Your task to perform on an android device: Do I have any events this weekend? Image 0: 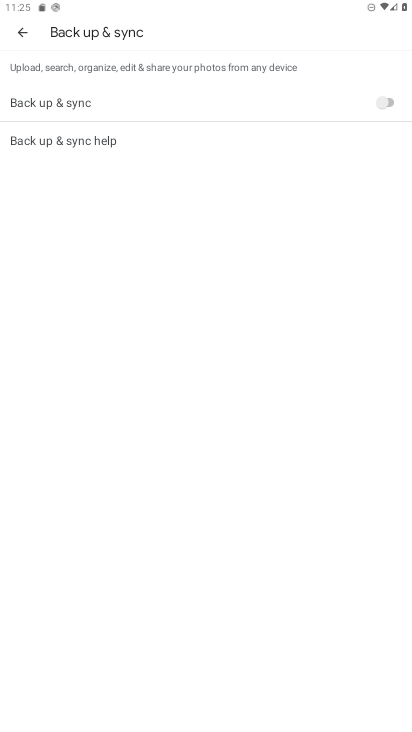
Step 0: press back button
Your task to perform on an android device: Do I have any events this weekend? Image 1: 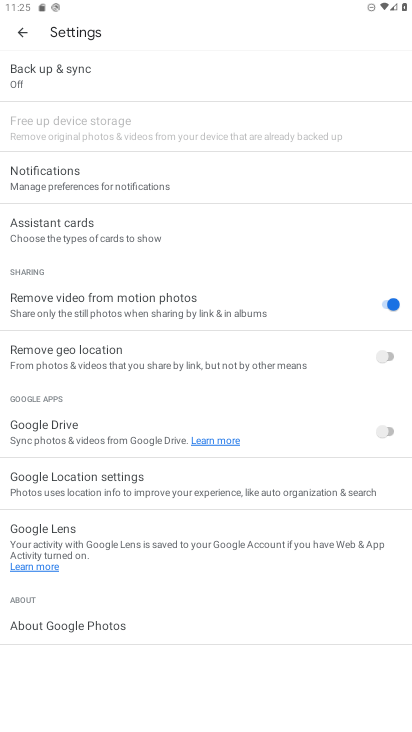
Step 1: press back button
Your task to perform on an android device: Do I have any events this weekend? Image 2: 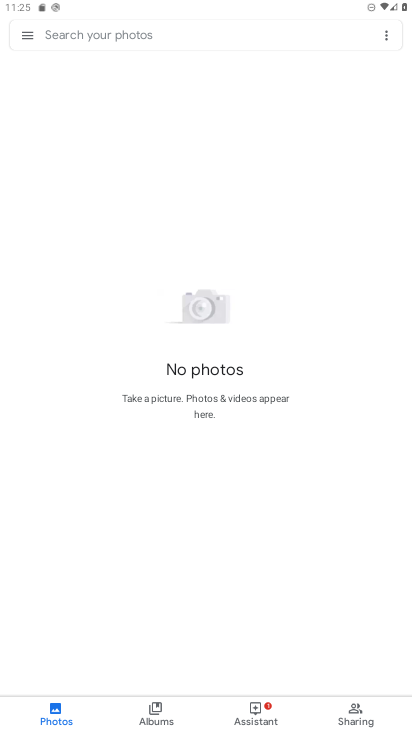
Step 2: press back button
Your task to perform on an android device: Do I have any events this weekend? Image 3: 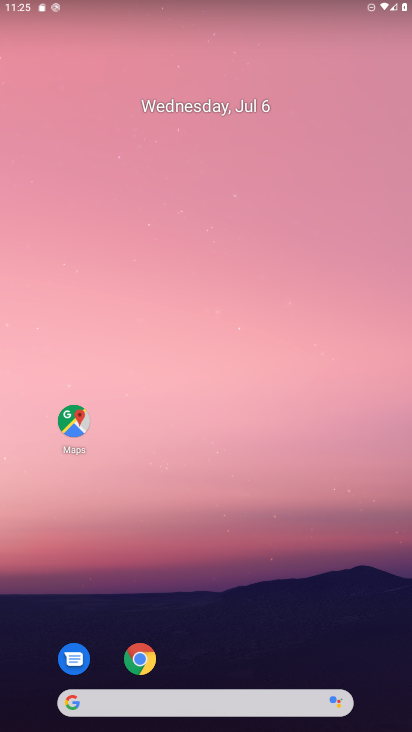
Step 3: drag from (215, 528) to (262, 56)
Your task to perform on an android device: Do I have any events this weekend? Image 4: 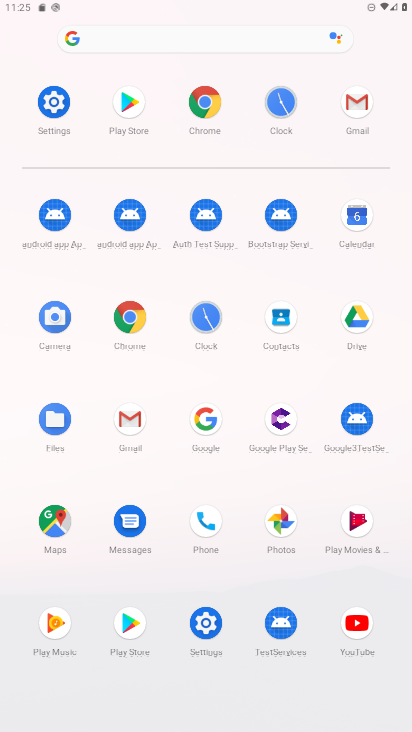
Step 4: click (349, 224)
Your task to perform on an android device: Do I have any events this weekend? Image 5: 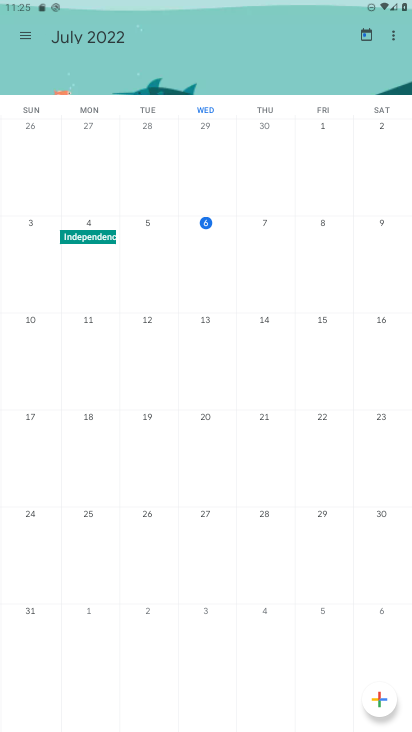
Step 5: click (25, 33)
Your task to perform on an android device: Do I have any events this weekend? Image 6: 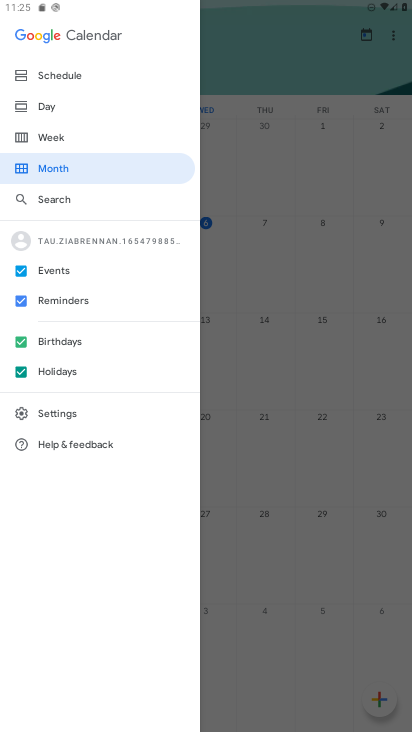
Step 6: click (76, 74)
Your task to perform on an android device: Do I have any events this weekend? Image 7: 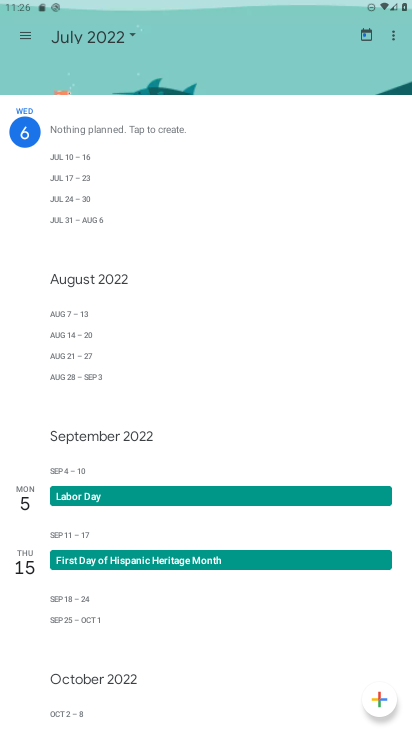
Step 7: task complete